Your task to perform on an android device: Open display settings Image 0: 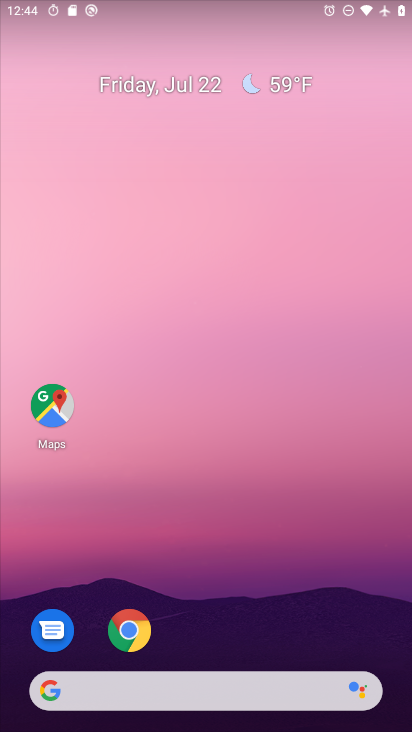
Step 0: press home button
Your task to perform on an android device: Open display settings Image 1: 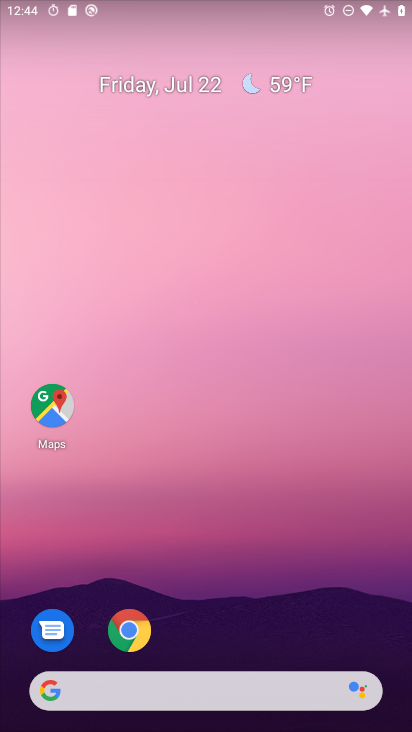
Step 1: drag from (219, 639) to (272, 178)
Your task to perform on an android device: Open display settings Image 2: 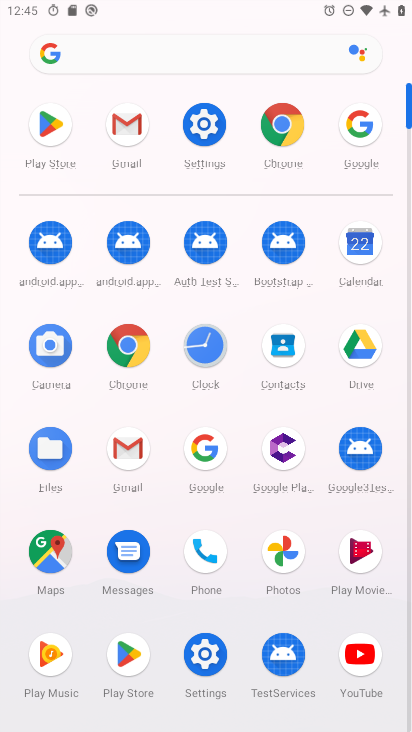
Step 2: click (204, 128)
Your task to perform on an android device: Open display settings Image 3: 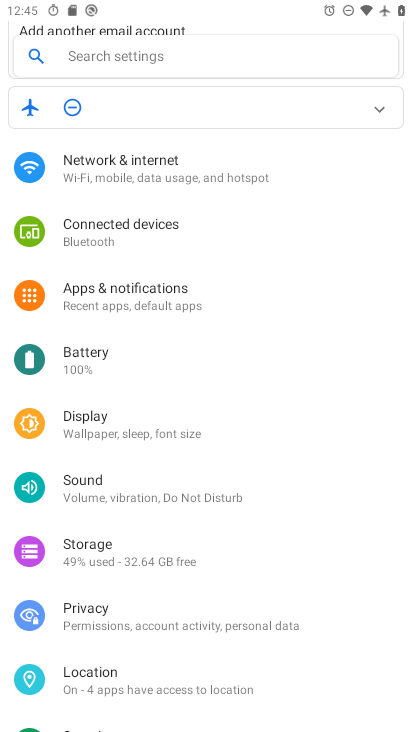
Step 3: click (97, 422)
Your task to perform on an android device: Open display settings Image 4: 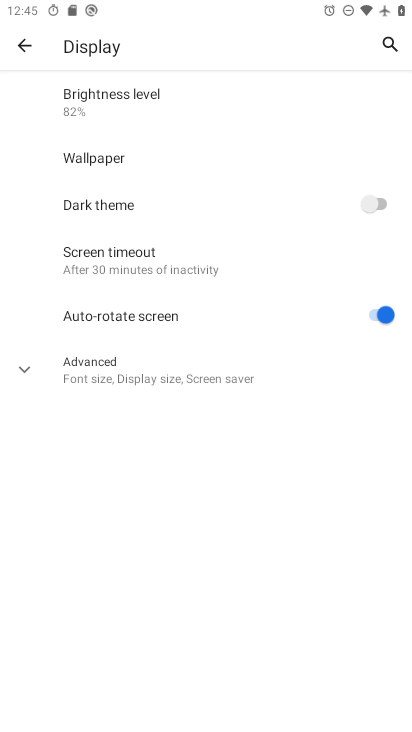
Step 4: task complete